Your task to perform on an android device: toggle wifi Image 0: 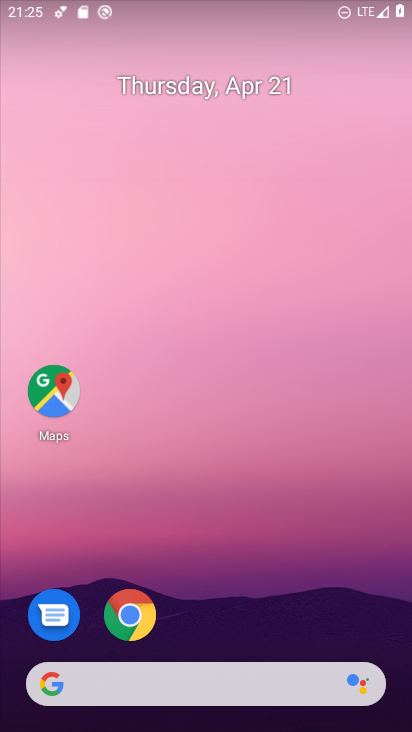
Step 0: click (382, 376)
Your task to perform on an android device: toggle wifi Image 1: 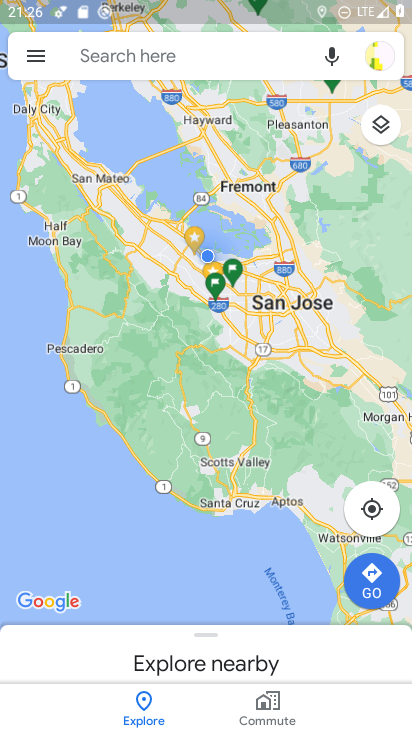
Step 1: press home button
Your task to perform on an android device: toggle wifi Image 2: 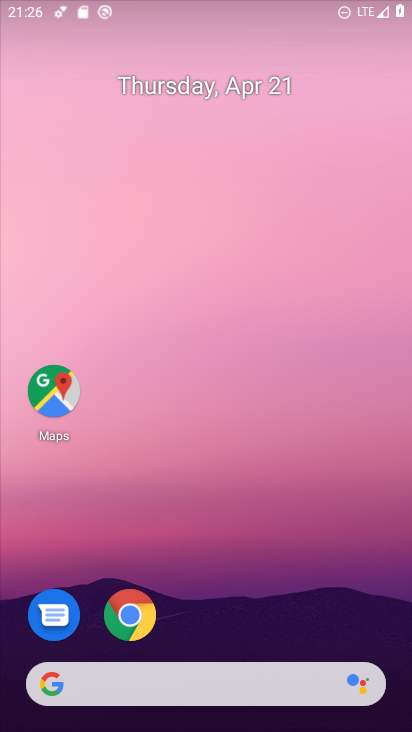
Step 2: drag from (210, 553) to (220, 7)
Your task to perform on an android device: toggle wifi Image 3: 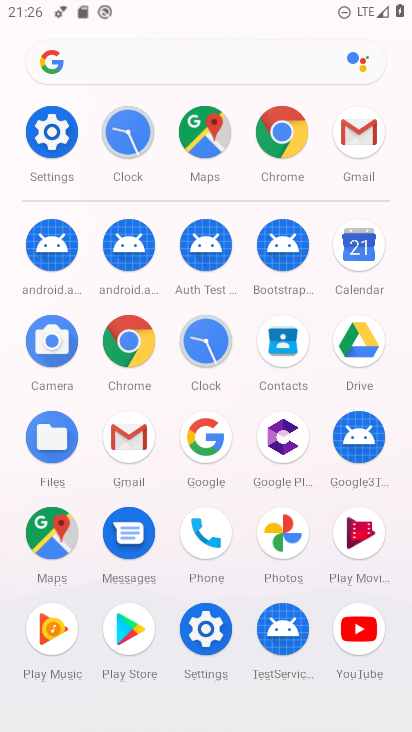
Step 3: click (52, 130)
Your task to perform on an android device: toggle wifi Image 4: 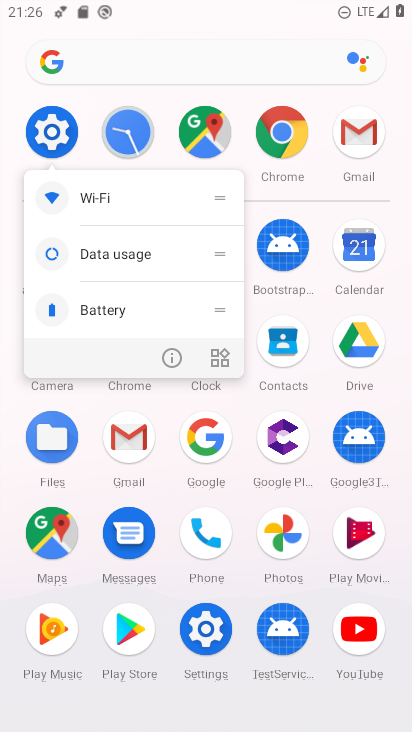
Step 4: click (166, 364)
Your task to perform on an android device: toggle wifi Image 5: 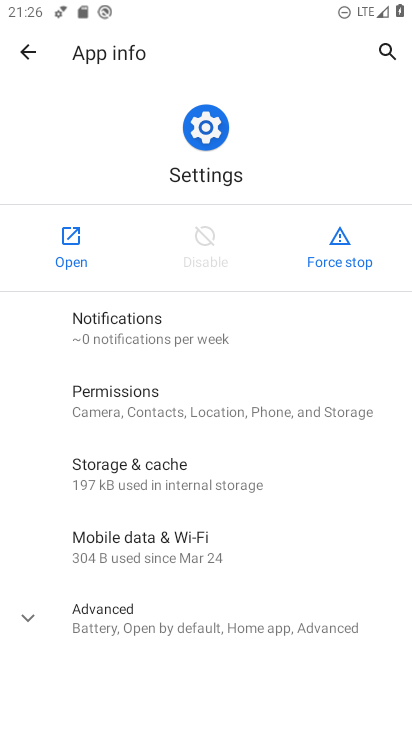
Step 5: click (36, 247)
Your task to perform on an android device: toggle wifi Image 6: 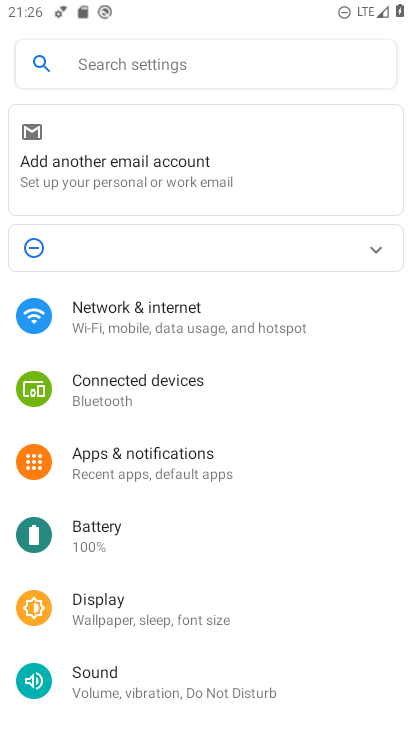
Step 6: click (154, 310)
Your task to perform on an android device: toggle wifi Image 7: 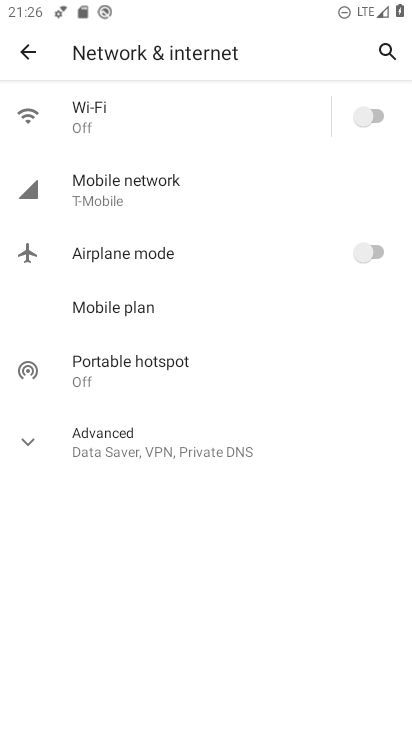
Step 7: click (216, 113)
Your task to perform on an android device: toggle wifi Image 8: 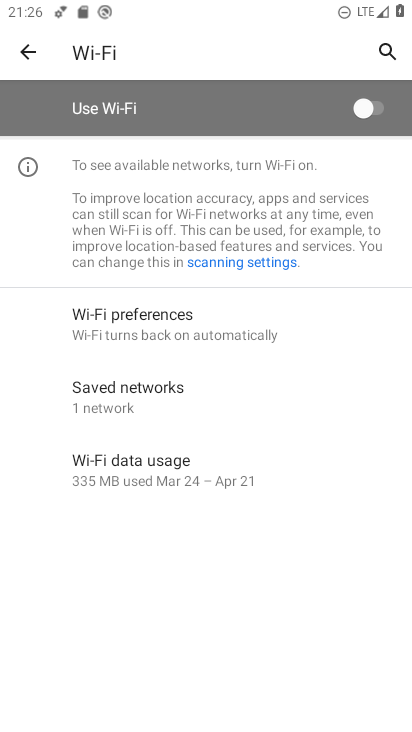
Step 8: click (349, 123)
Your task to perform on an android device: toggle wifi Image 9: 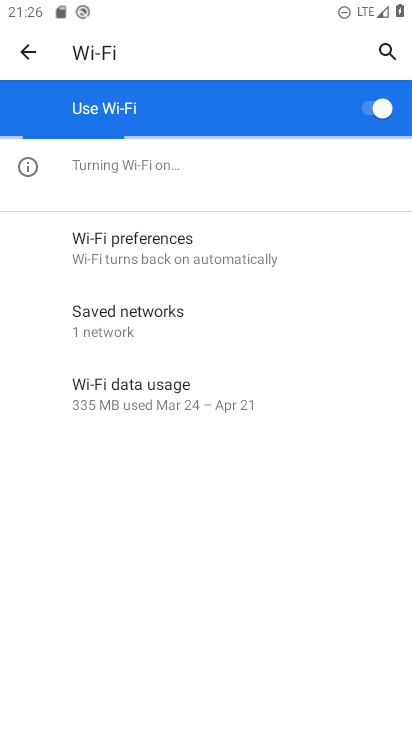
Step 9: task complete